Your task to perform on an android device: Open the web browser Image 0: 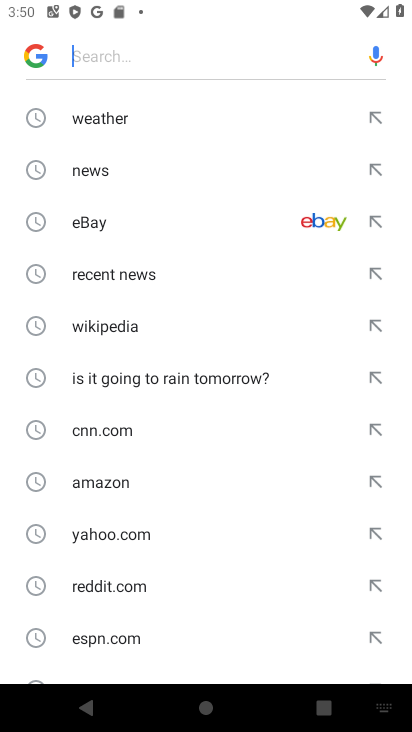
Step 0: press back button
Your task to perform on an android device: Open the web browser Image 1: 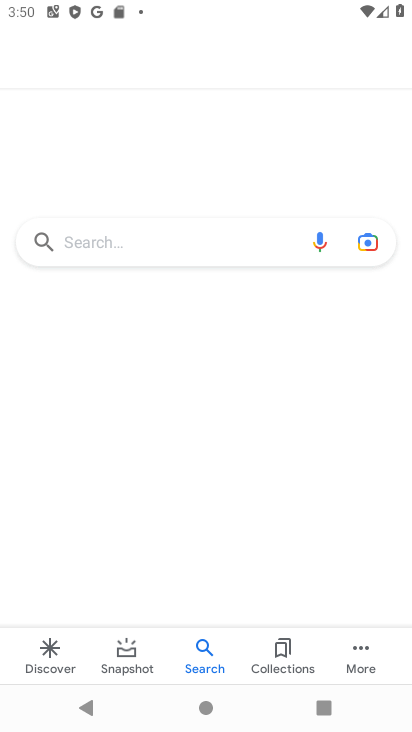
Step 1: press home button
Your task to perform on an android device: Open the web browser Image 2: 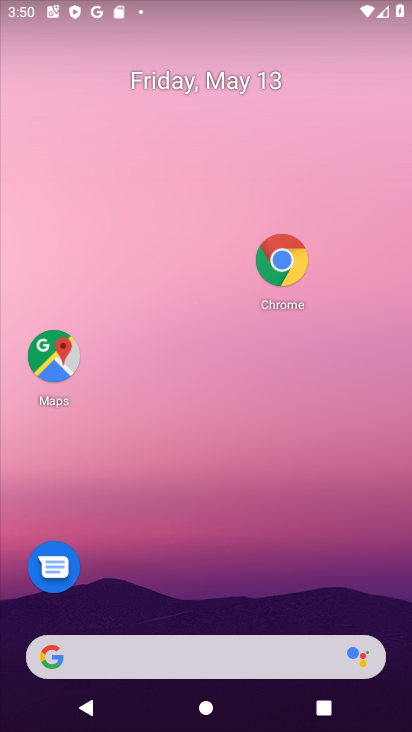
Step 2: drag from (369, 674) to (239, 225)
Your task to perform on an android device: Open the web browser Image 3: 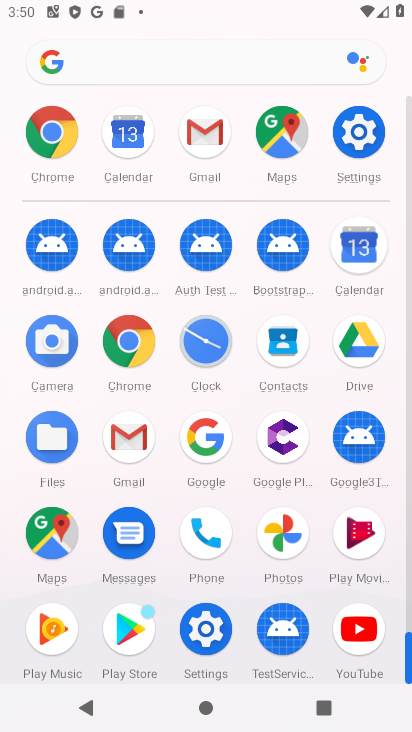
Step 3: click (60, 136)
Your task to perform on an android device: Open the web browser Image 4: 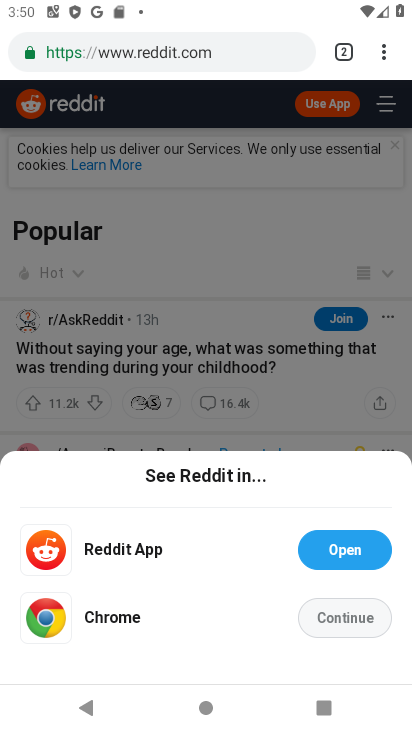
Step 4: click (313, 278)
Your task to perform on an android device: Open the web browser Image 5: 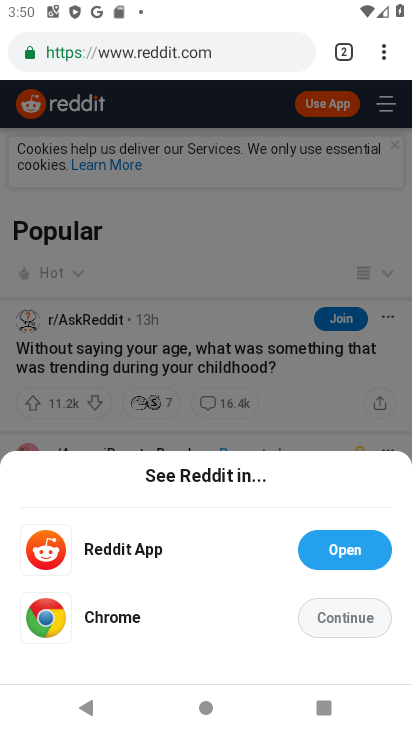
Step 5: press back button
Your task to perform on an android device: Open the web browser Image 6: 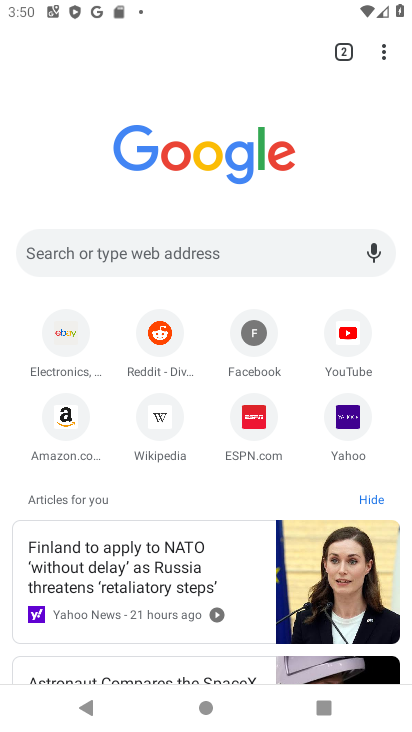
Step 6: drag from (383, 50) to (201, 95)
Your task to perform on an android device: Open the web browser Image 7: 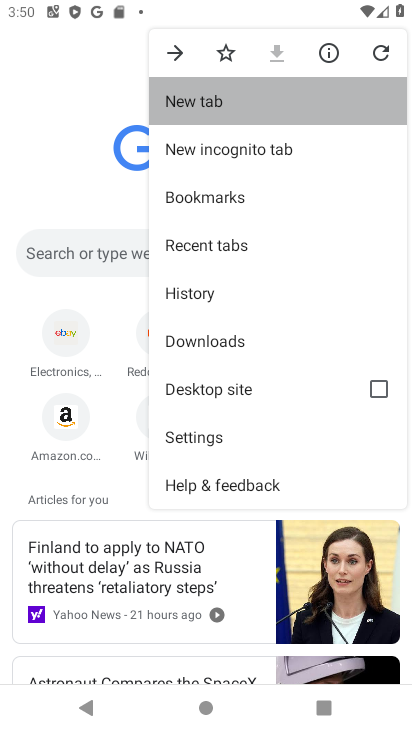
Step 7: click (201, 95)
Your task to perform on an android device: Open the web browser Image 8: 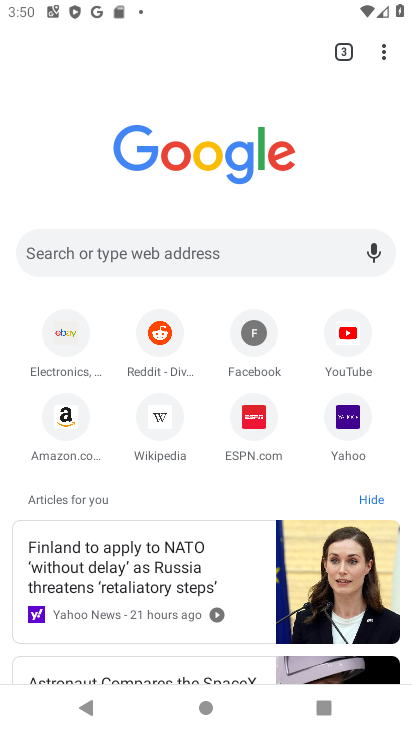
Step 8: task complete